Your task to perform on an android device: Open settings Image 0: 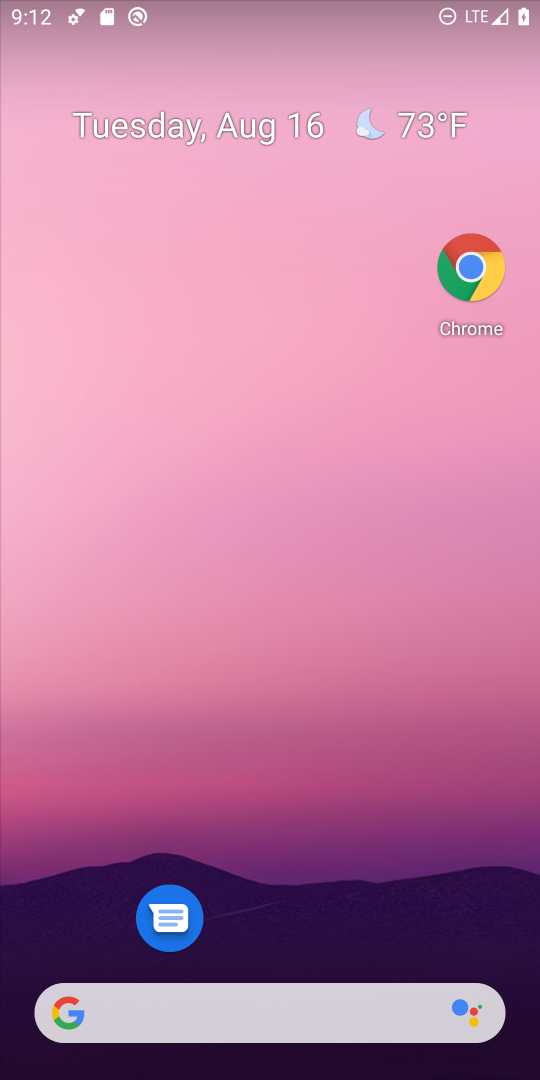
Step 0: drag from (354, 990) to (495, 83)
Your task to perform on an android device: Open settings Image 1: 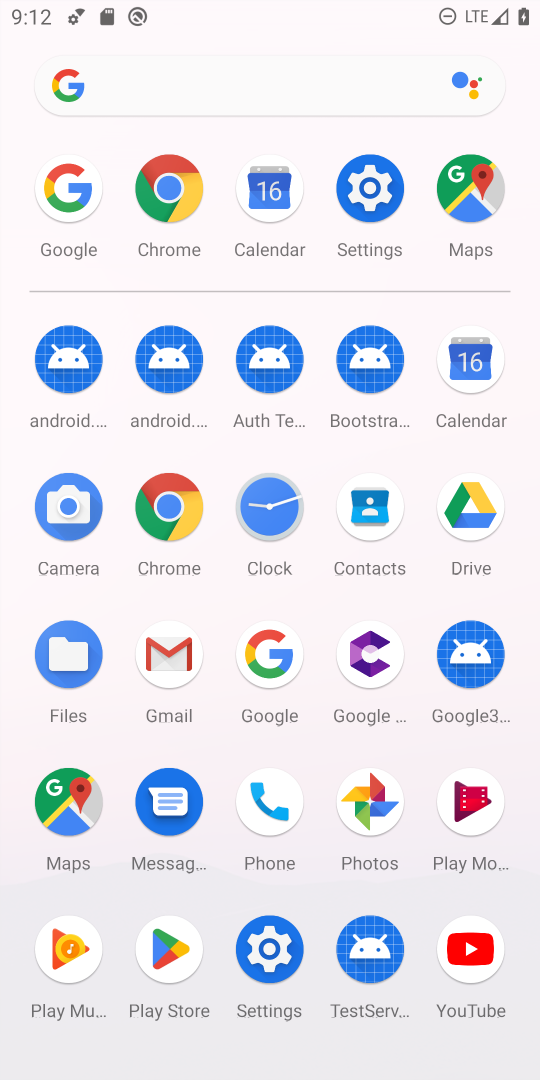
Step 1: click (373, 202)
Your task to perform on an android device: Open settings Image 2: 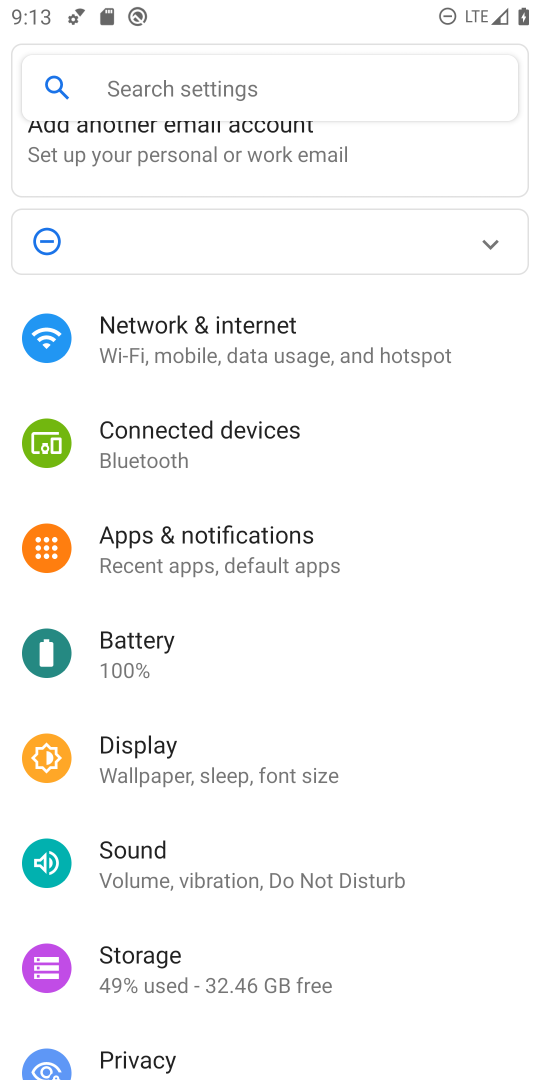
Step 2: task complete